Your task to perform on an android device: Toggle the flashlight Image 0: 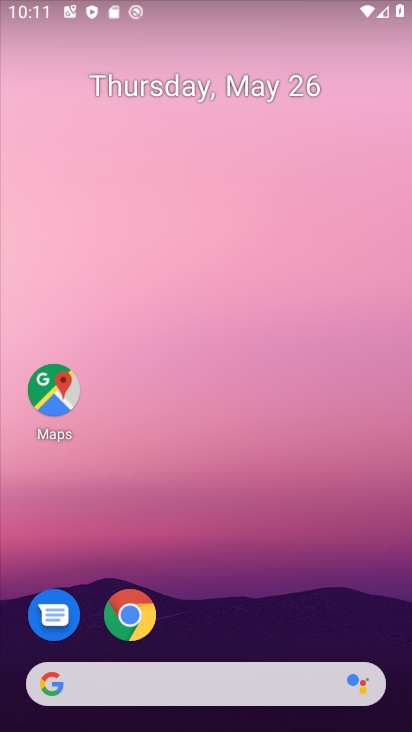
Step 0: drag from (255, 673) to (209, 2)
Your task to perform on an android device: Toggle the flashlight Image 1: 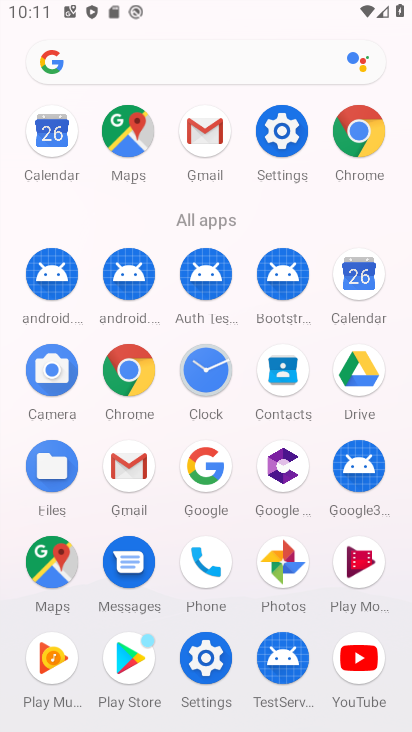
Step 1: task complete